Your task to perform on an android device: turn off priority inbox in the gmail app Image 0: 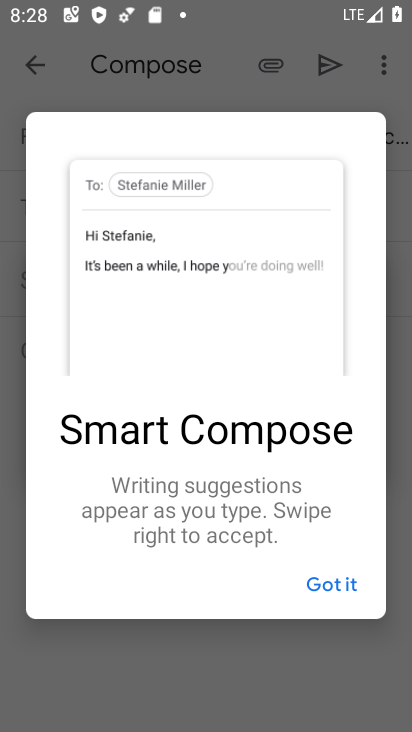
Step 0: press home button
Your task to perform on an android device: turn off priority inbox in the gmail app Image 1: 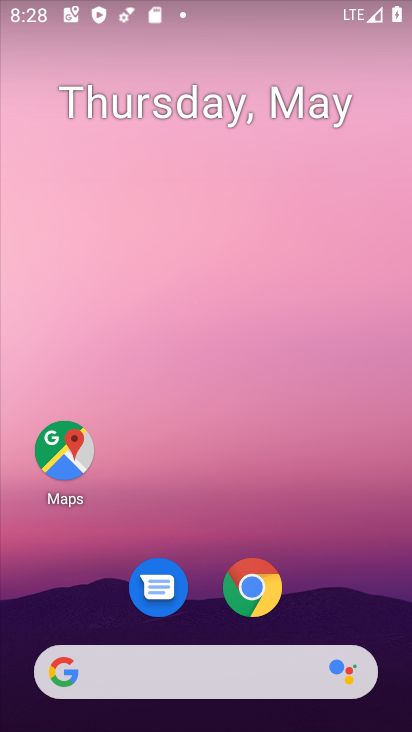
Step 1: drag from (119, 730) to (127, 77)
Your task to perform on an android device: turn off priority inbox in the gmail app Image 2: 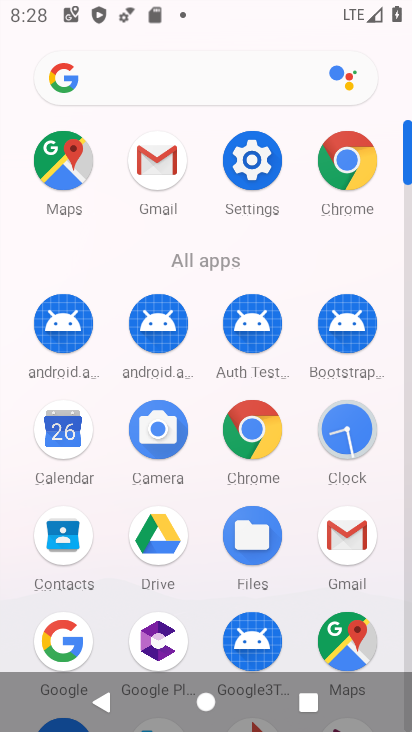
Step 2: click (361, 550)
Your task to perform on an android device: turn off priority inbox in the gmail app Image 3: 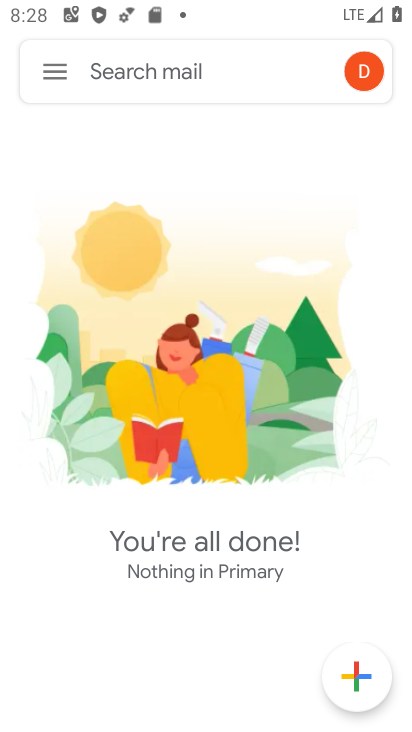
Step 3: click (55, 76)
Your task to perform on an android device: turn off priority inbox in the gmail app Image 4: 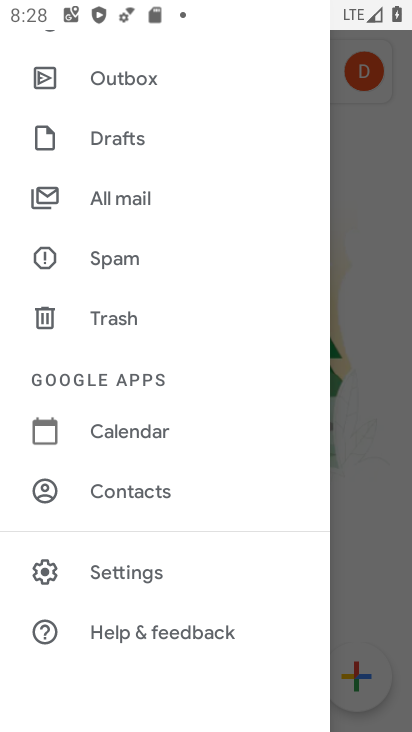
Step 4: click (118, 581)
Your task to perform on an android device: turn off priority inbox in the gmail app Image 5: 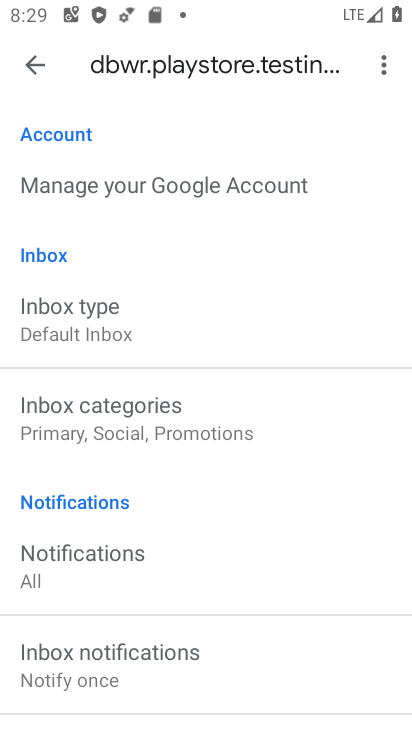
Step 5: click (183, 427)
Your task to perform on an android device: turn off priority inbox in the gmail app Image 6: 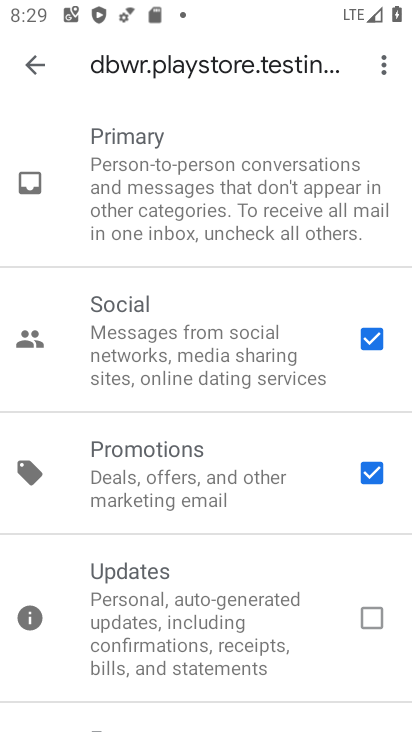
Step 6: task complete